Your task to perform on an android device: What's on my calendar tomorrow? Image 0: 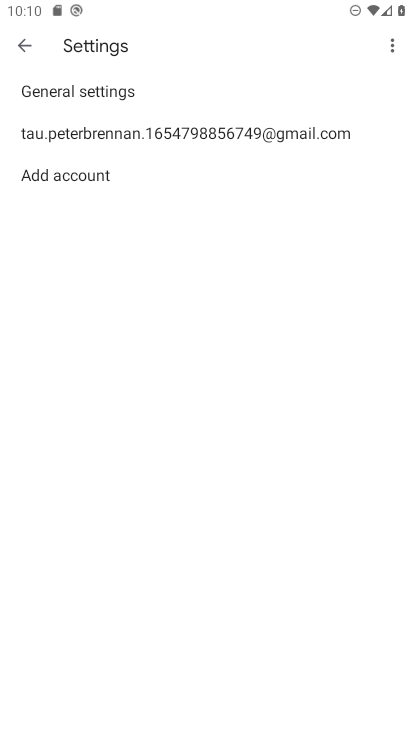
Step 0: press home button
Your task to perform on an android device: What's on my calendar tomorrow? Image 1: 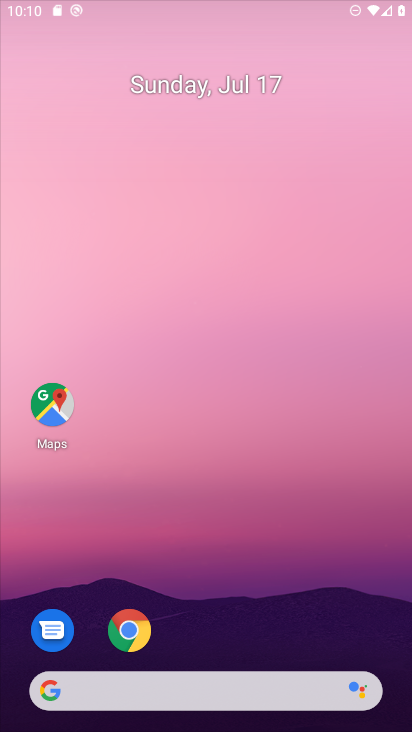
Step 1: drag from (157, 492) to (162, 244)
Your task to perform on an android device: What's on my calendar tomorrow? Image 2: 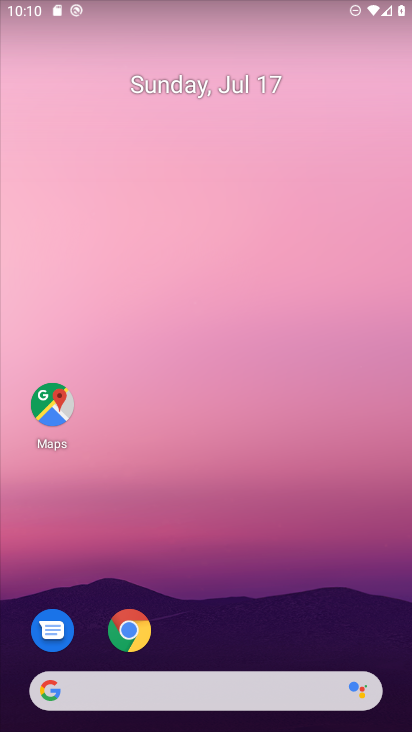
Step 2: drag from (258, 581) to (254, 181)
Your task to perform on an android device: What's on my calendar tomorrow? Image 3: 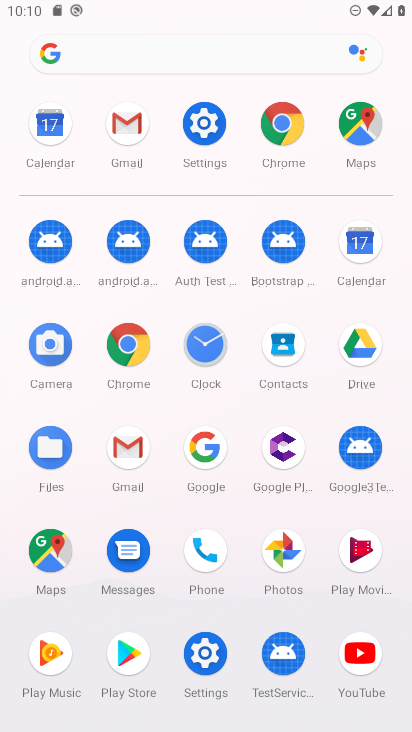
Step 3: click (350, 253)
Your task to perform on an android device: What's on my calendar tomorrow? Image 4: 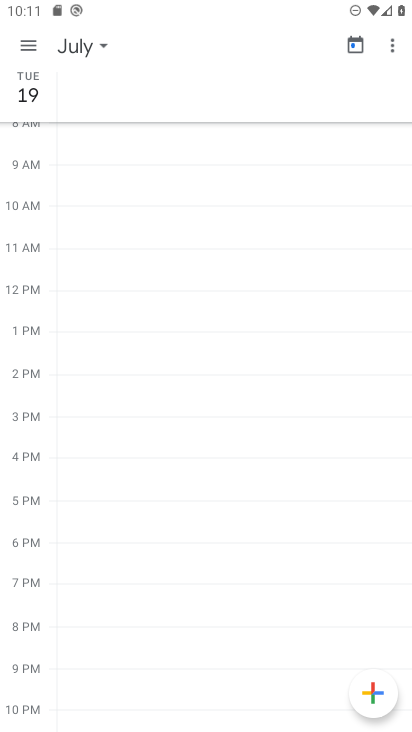
Step 4: task complete